Your task to perform on an android device: Set the phone to "Do not disturb". Image 0: 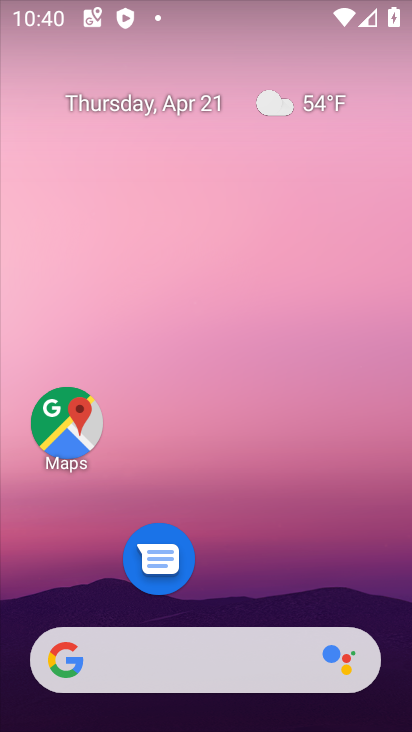
Step 0: drag from (168, 7) to (211, 572)
Your task to perform on an android device: Set the phone to "Do not disturb". Image 1: 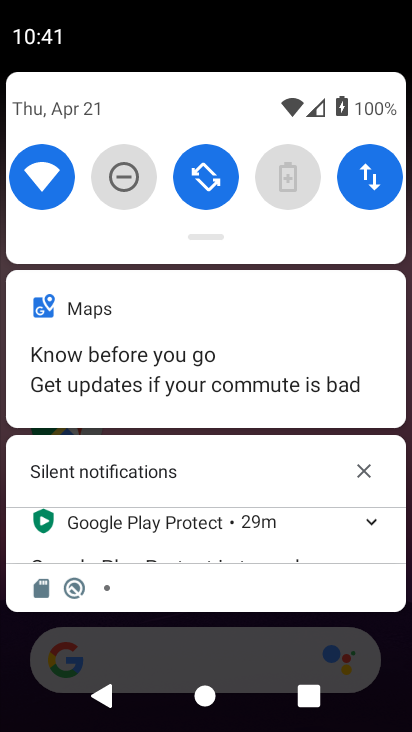
Step 1: click (133, 175)
Your task to perform on an android device: Set the phone to "Do not disturb". Image 2: 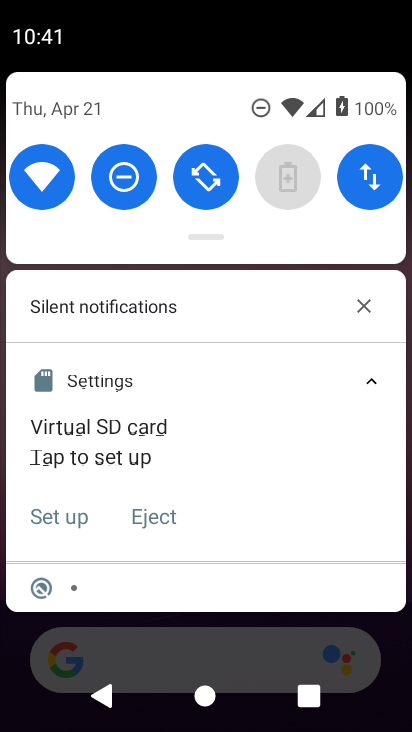
Step 2: task complete